Your task to perform on an android device: see sites visited before in the chrome app Image 0: 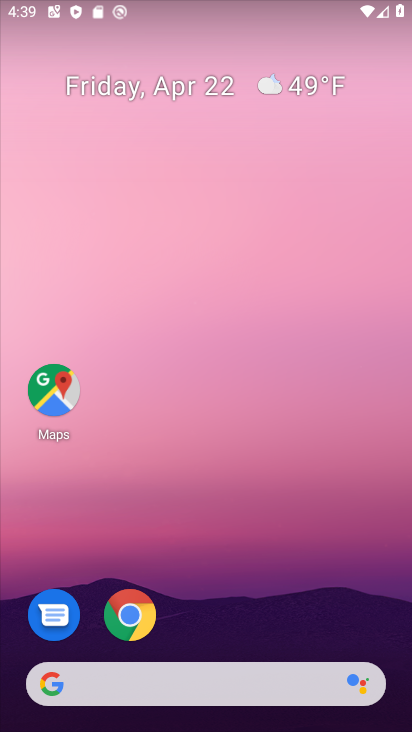
Step 0: click (129, 606)
Your task to perform on an android device: see sites visited before in the chrome app Image 1: 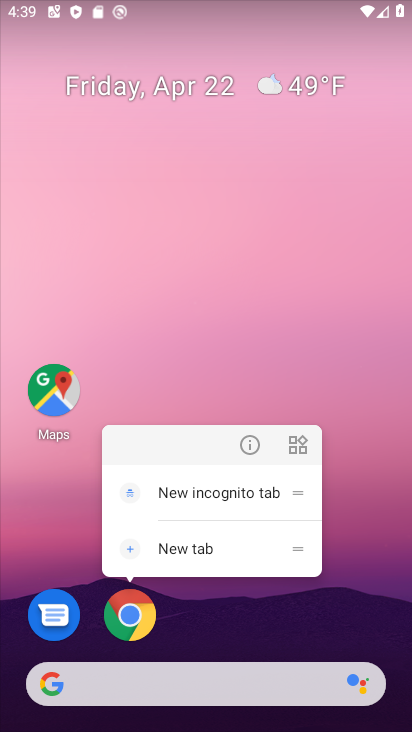
Step 1: click (150, 607)
Your task to perform on an android device: see sites visited before in the chrome app Image 2: 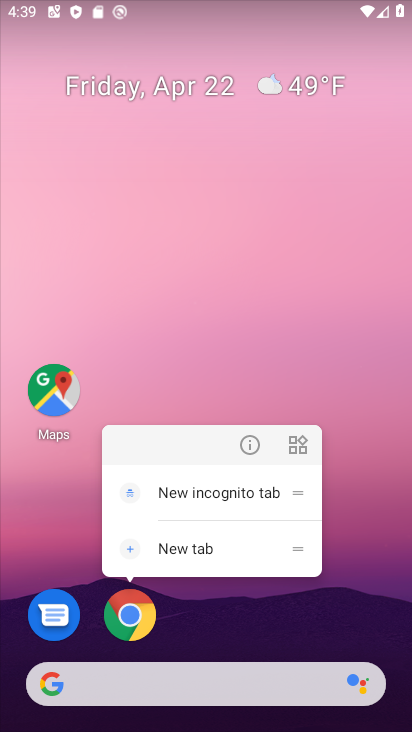
Step 2: click (150, 607)
Your task to perform on an android device: see sites visited before in the chrome app Image 3: 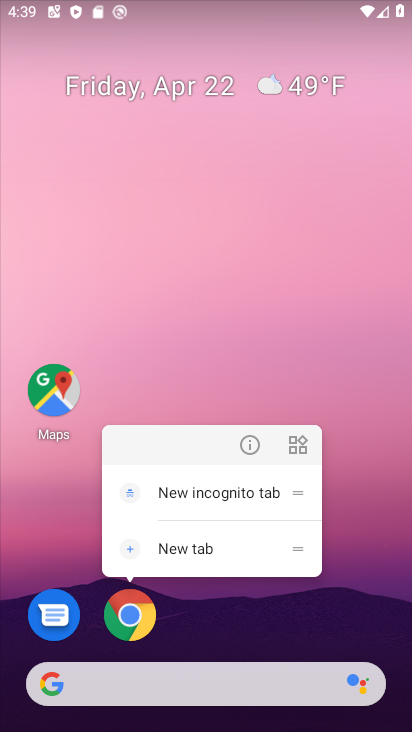
Step 3: click (150, 607)
Your task to perform on an android device: see sites visited before in the chrome app Image 4: 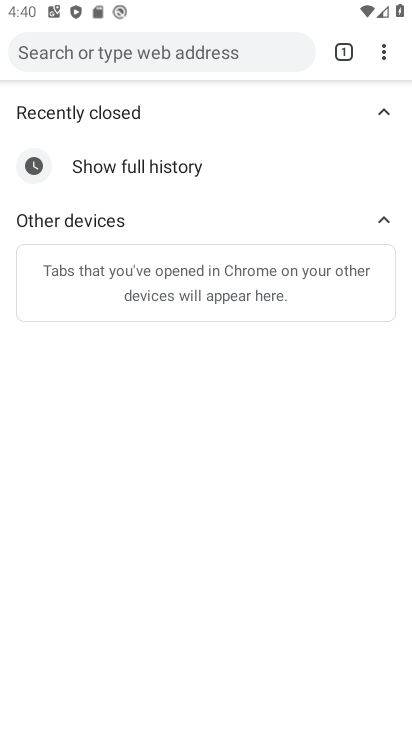
Step 4: task complete